Your task to perform on an android device: turn on sleep mode Image 0: 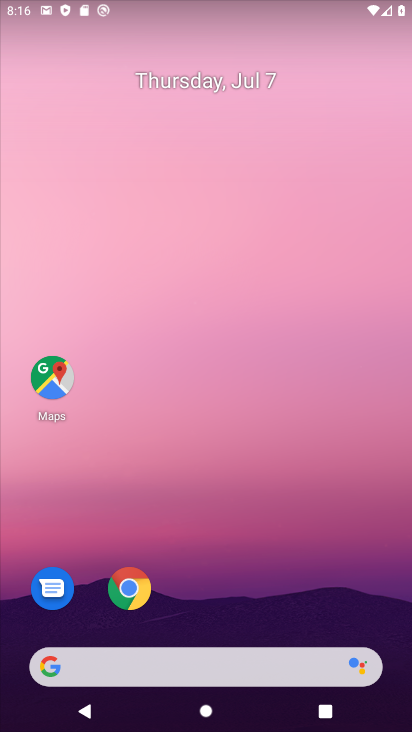
Step 0: drag from (364, 592) to (325, 308)
Your task to perform on an android device: turn on sleep mode Image 1: 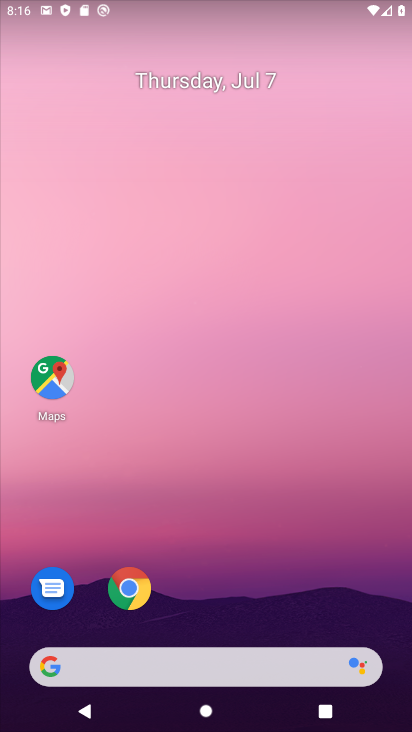
Step 1: drag from (288, 574) to (264, 172)
Your task to perform on an android device: turn on sleep mode Image 2: 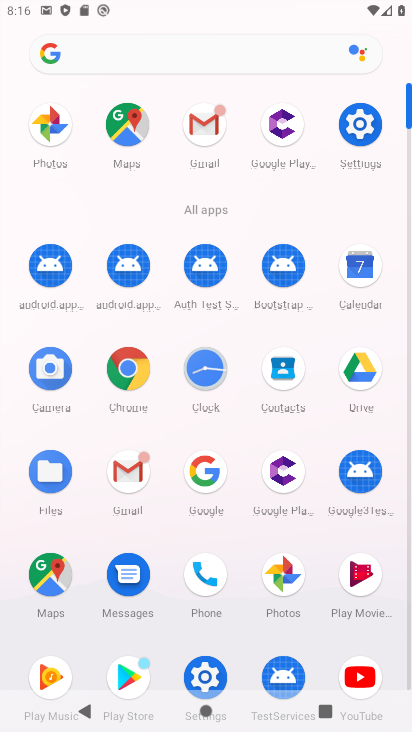
Step 2: drag from (350, 6) to (313, 564)
Your task to perform on an android device: turn on sleep mode Image 3: 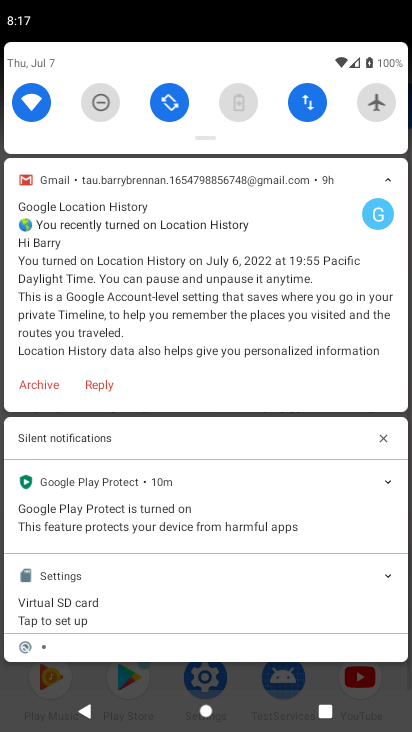
Step 3: drag from (188, 139) to (173, 589)
Your task to perform on an android device: turn on sleep mode Image 4: 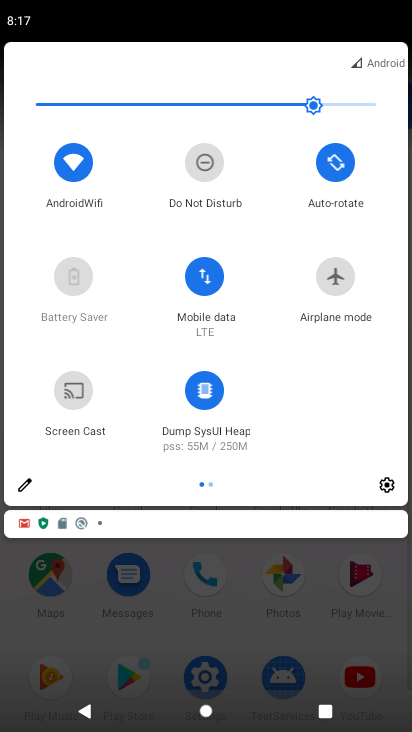
Step 4: click (27, 482)
Your task to perform on an android device: turn on sleep mode Image 5: 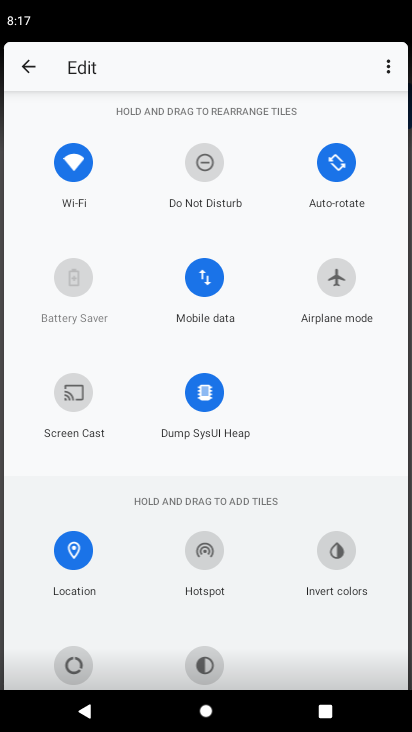
Step 5: task complete